Your task to perform on an android device: change timer sound Image 0: 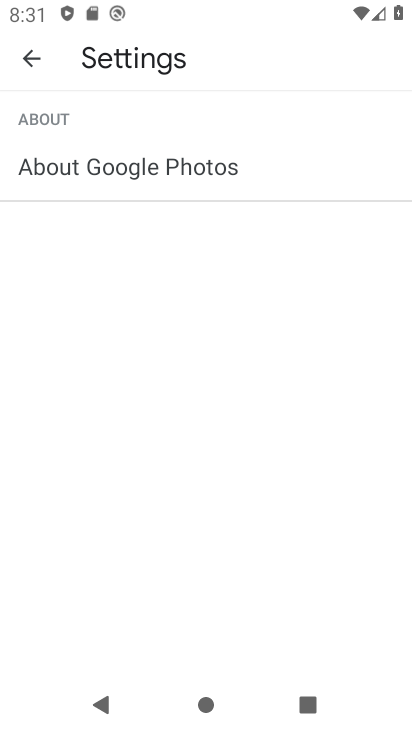
Step 0: press home button
Your task to perform on an android device: change timer sound Image 1: 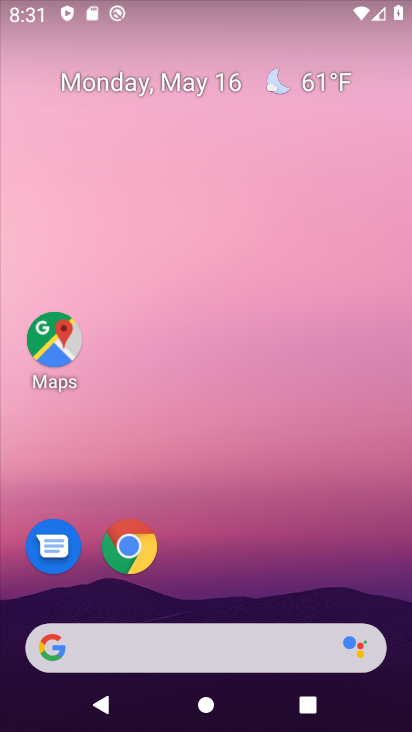
Step 1: drag from (308, 480) to (250, 112)
Your task to perform on an android device: change timer sound Image 2: 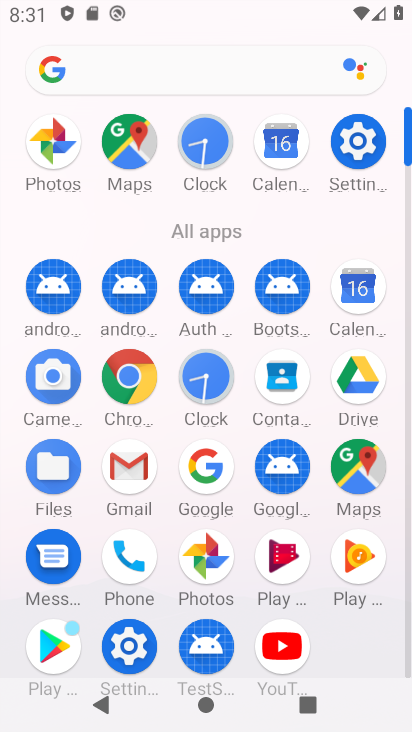
Step 2: click (209, 371)
Your task to perform on an android device: change timer sound Image 3: 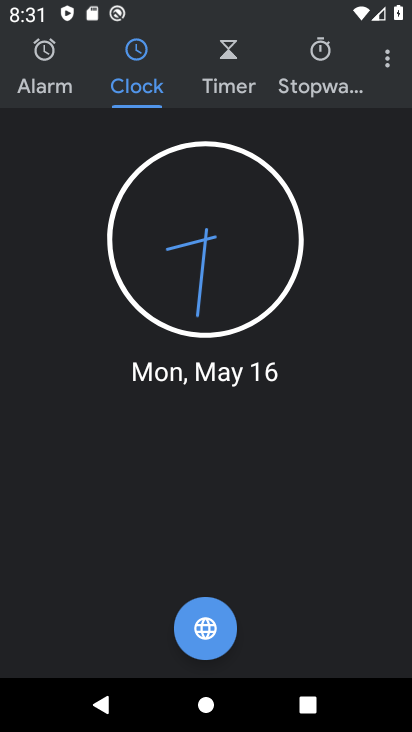
Step 3: click (390, 59)
Your task to perform on an android device: change timer sound Image 4: 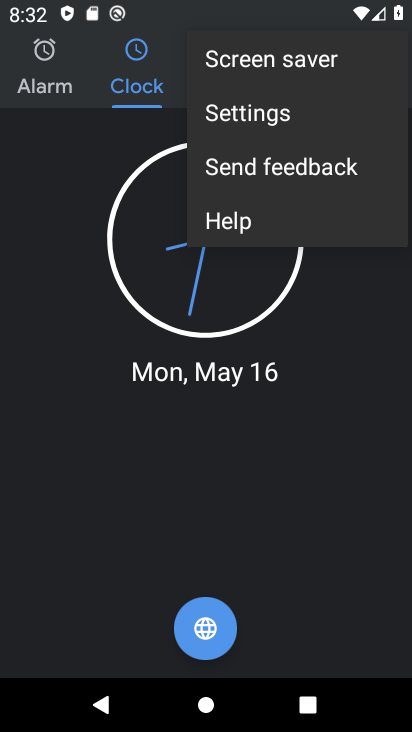
Step 4: click (311, 126)
Your task to perform on an android device: change timer sound Image 5: 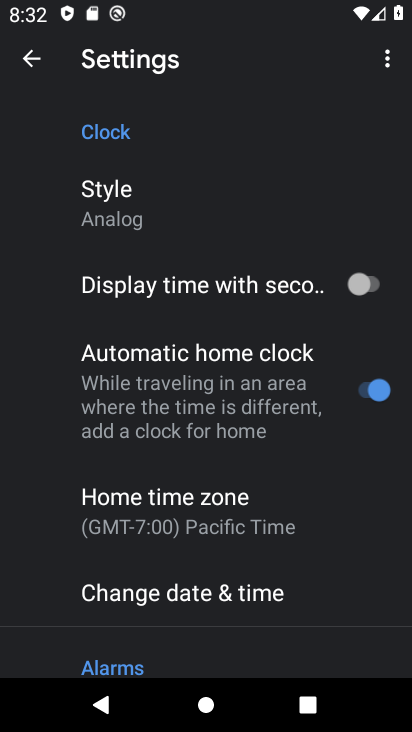
Step 5: drag from (244, 526) to (220, 368)
Your task to perform on an android device: change timer sound Image 6: 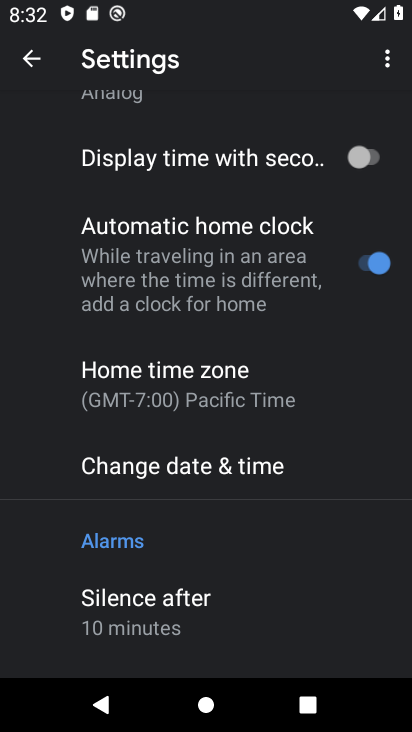
Step 6: drag from (281, 556) to (217, 277)
Your task to perform on an android device: change timer sound Image 7: 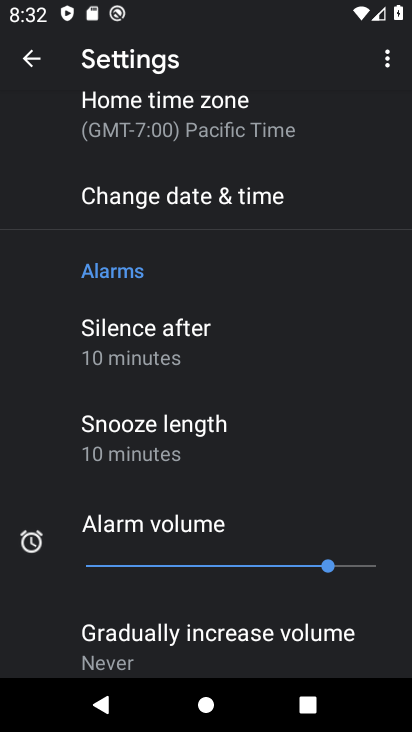
Step 7: drag from (287, 605) to (196, 326)
Your task to perform on an android device: change timer sound Image 8: 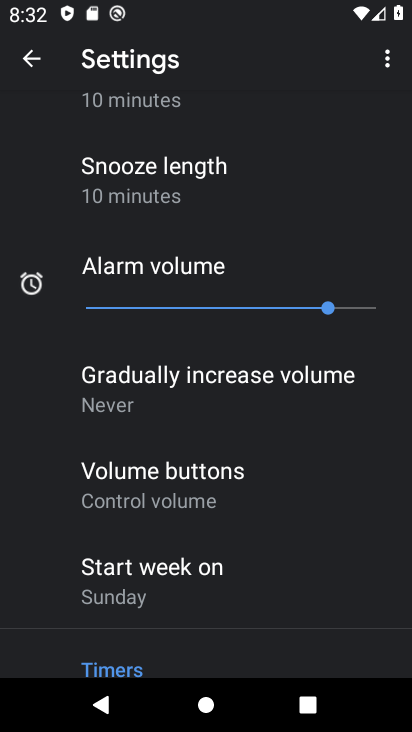
Step 8: drag from (244, 610) to (198, 326)
Your task to perform on an android device: change timer sound Image 9: 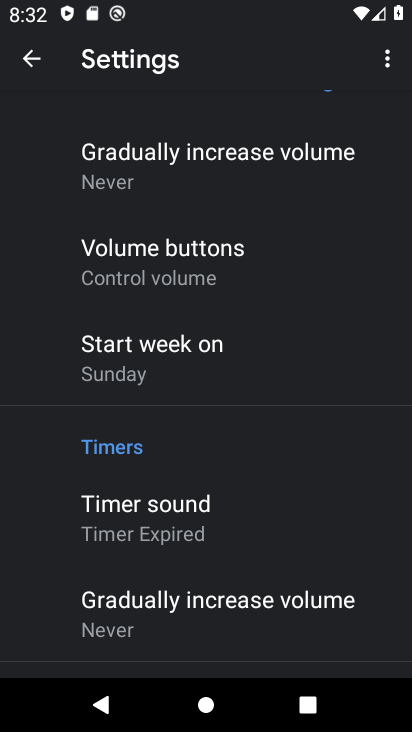
Step 9: click (229, 506)
Your task to perform on an android device: change timer sound Image 10: 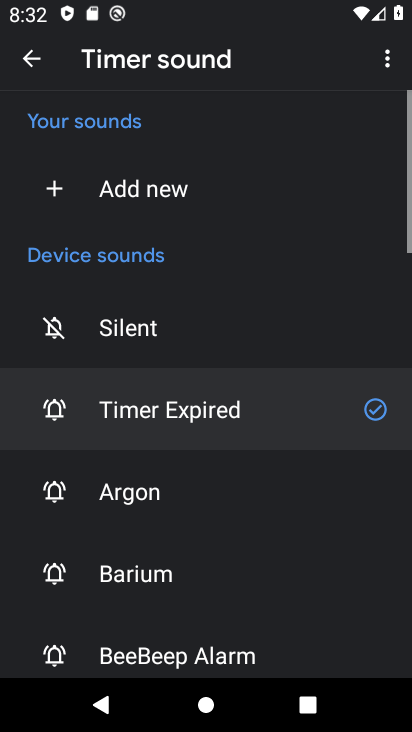
Step 10: click (169, 500)
Your task to perform on an android device: change timer sound Image 11: 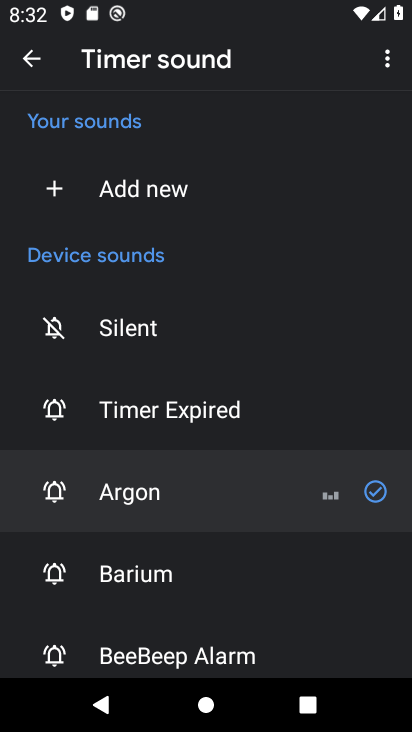
Step 11: task complete